Your task to perform on an android device: What is the news today? Image 0: 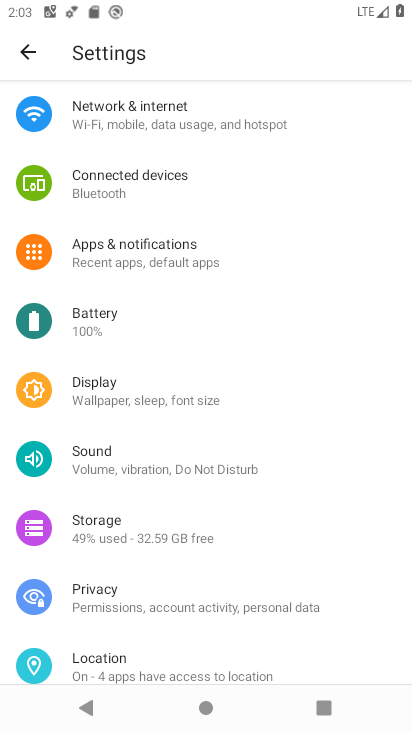
Step 0: press home button
Your task to perform on an android device: What is the news today? Image 1: 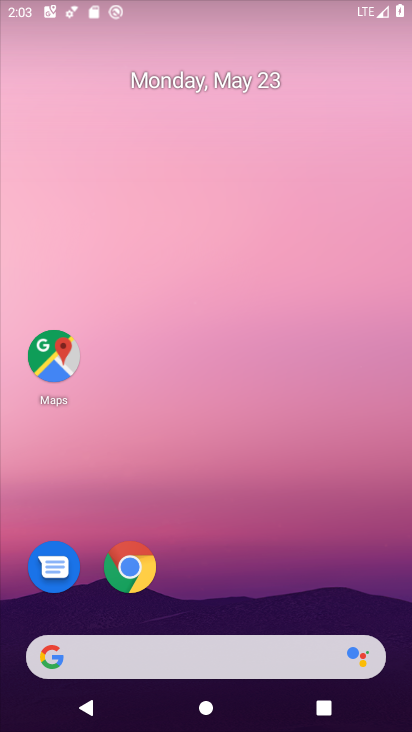
Step 1: drag from (227, 526) to (225, 173)
Your task to perform on an android device: What is the news today? Image 2: 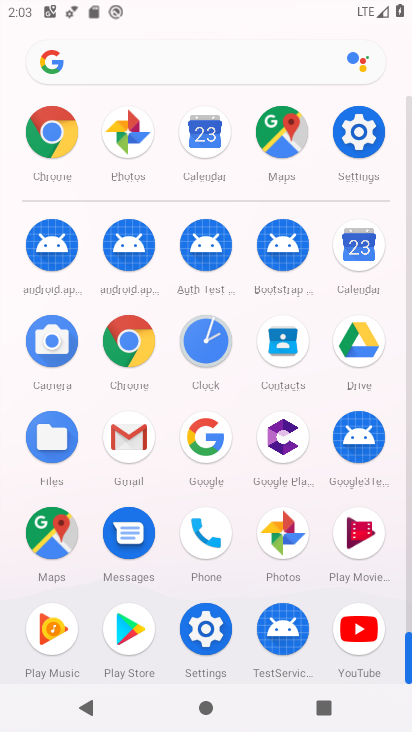
Step 2: click (220, 442)
Your task to perform on an android device: What is the news today? Image 3: 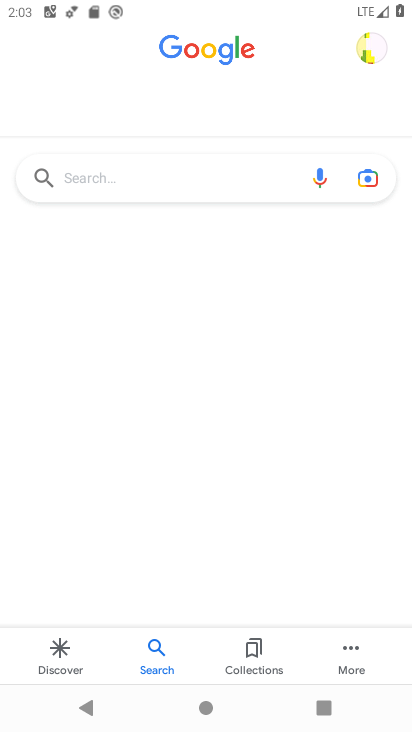
Step 3: click (48, 637)
Your task to perform on an android device: What is the news today? Image 4: 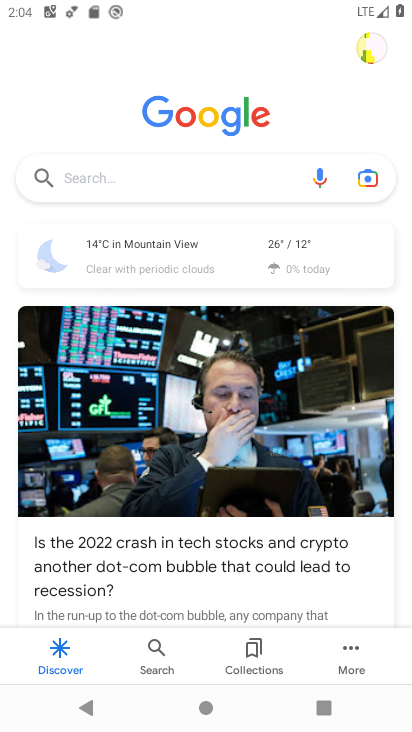
Step 4: task complete